Your task to perform on an android device: Open Google Image 0: 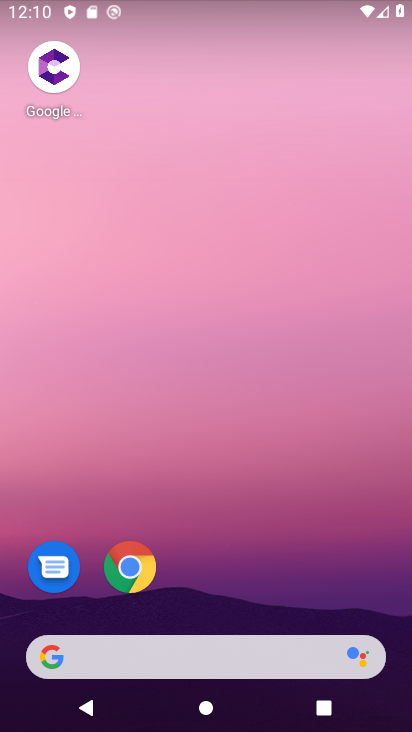
Step 0: click (174, 656)
Your task to perform on an android device: Open Google Image 1: 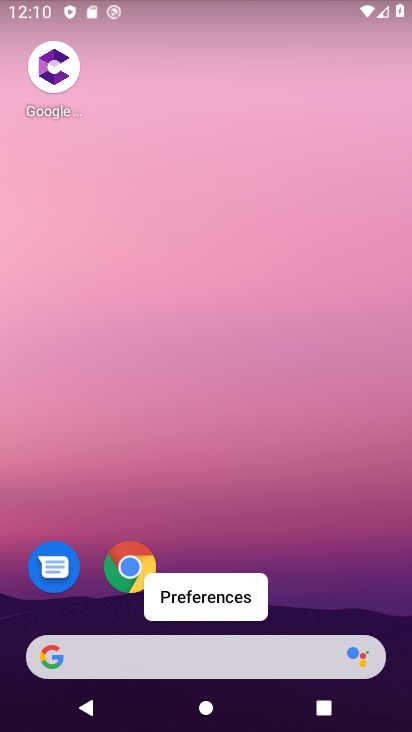
Step 1: click (182, 658)
Your task to perform on an android device: Open Google Image 2: 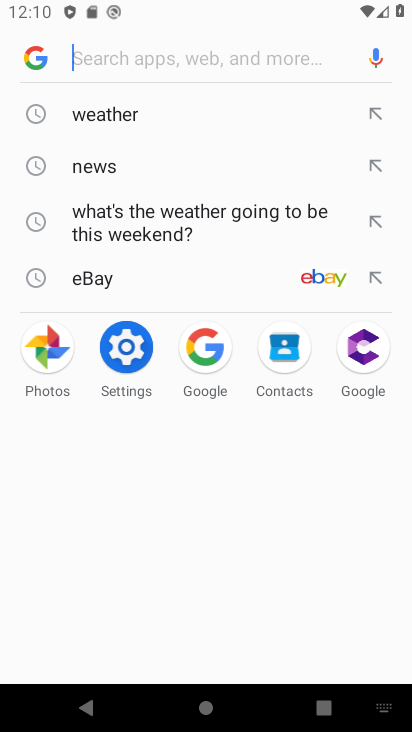
Step 2: click (30, 57)
Your task to perform on an android device: Open Google Image 3: 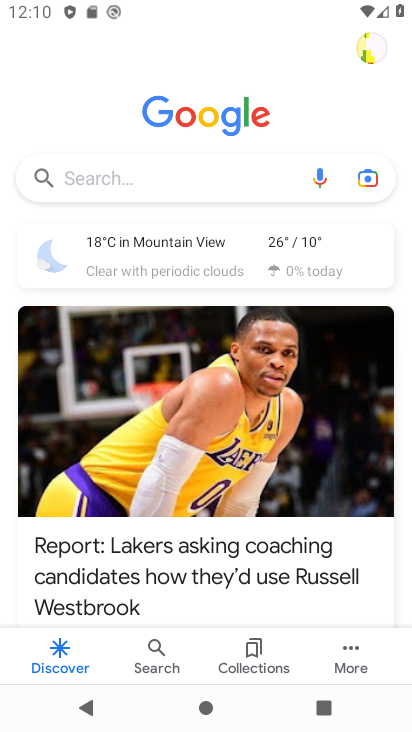
Step 3: task complete